Your task to perform on an android device: Open privacy settings Image 0: 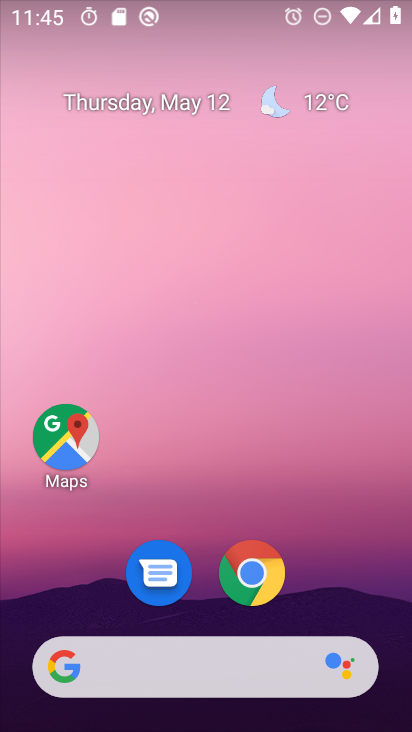
Step 0: drag from (388, 611) to (318, 226)
Your task to perform on an android device: Open privacy settings Image 1: 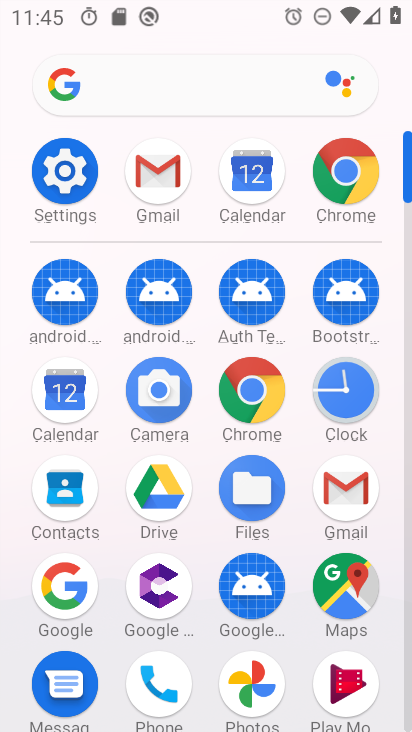
Step 1: click (350, 193)
Your task to perform on an android device: Open privacy settings Image 2: 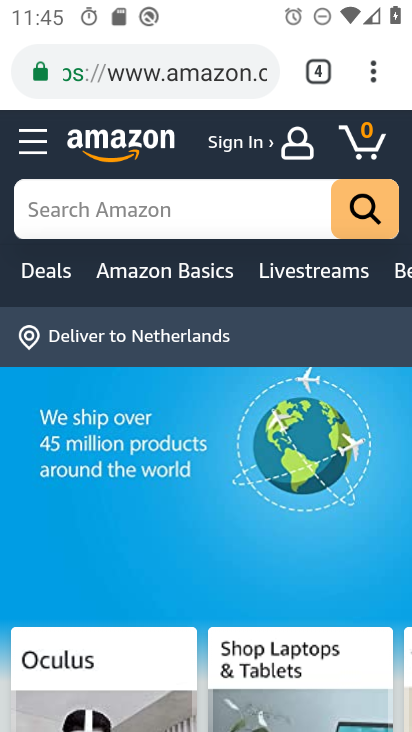
Step 2: click (369, 70)
Your task to perform on an android device: Open privacy settings Image 3: 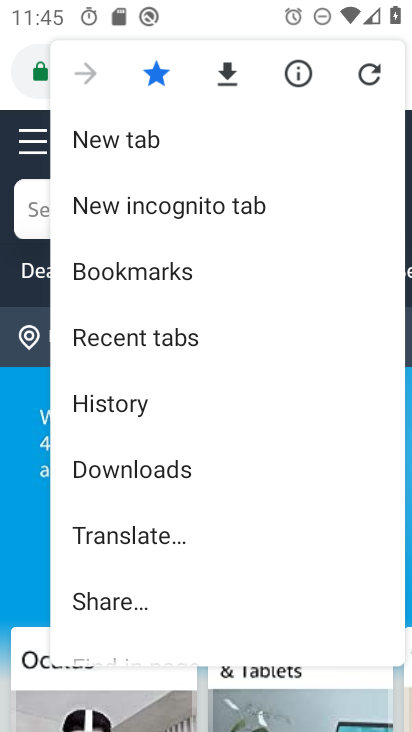
Step 3: drag from (258, 483) to (261, 257)
Your task to perform on an android device: Open privacy settings Image 4: 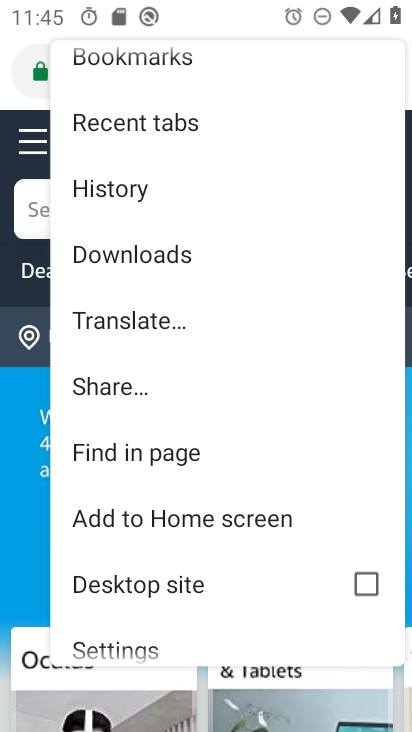
Step 4: click (100, 641)
Your task to perform on an android device: Open privacy settings Image 5: 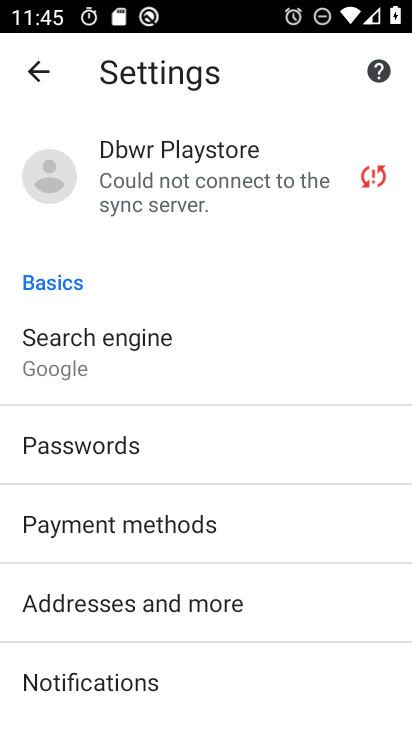
Step 5: drag from (300, 641) to (273, 349)
Your task to perform on an android device: Open privacy settings Image 6: 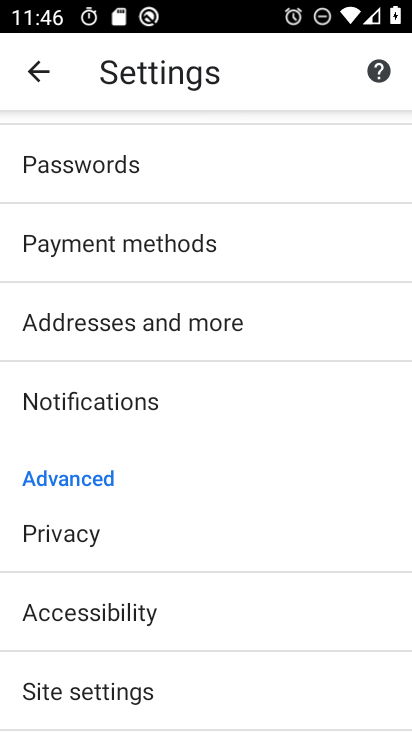
Step 6: click (58, 523)
Your task to perform on an android device: Open privacy settings Image 7: 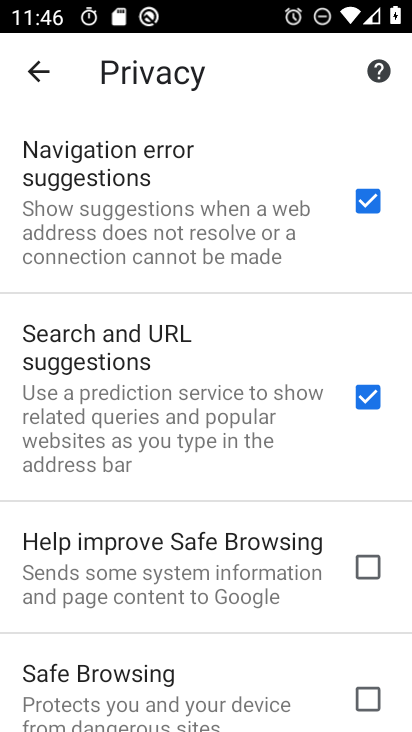
Step 7: task complete